Your task to perform on an android device: Go to CNN.com Image 0: 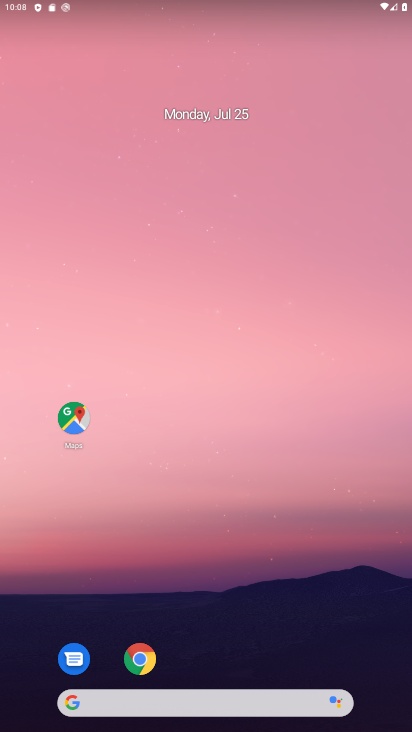
Step 0: drag from (207, 675) to (229, 171)
Your task to perform on an android device: Go to CNN.com Image 1: 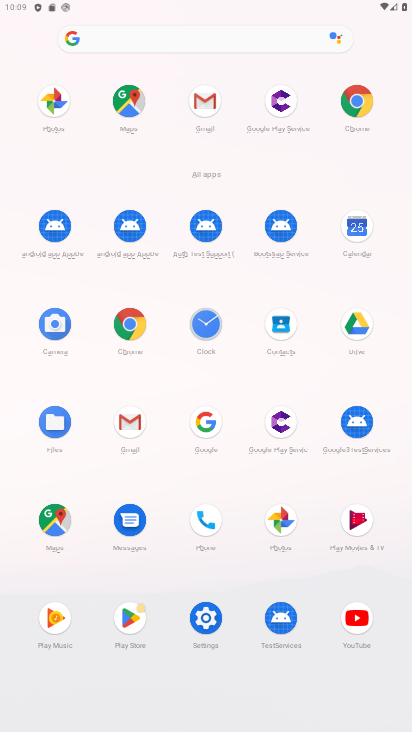
Step 1: click (356, 105)
Your task to perform on an android device: Go to CNN.com Image 2: 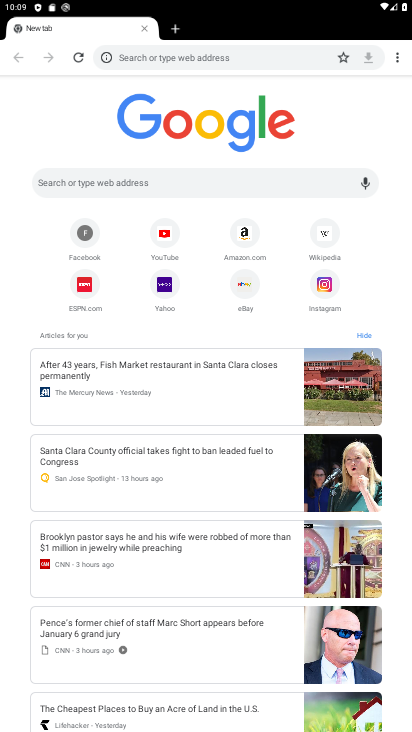
Step 2: click (112, 187)
Your task to perform on an android device: Go to CNN.com Image 3: 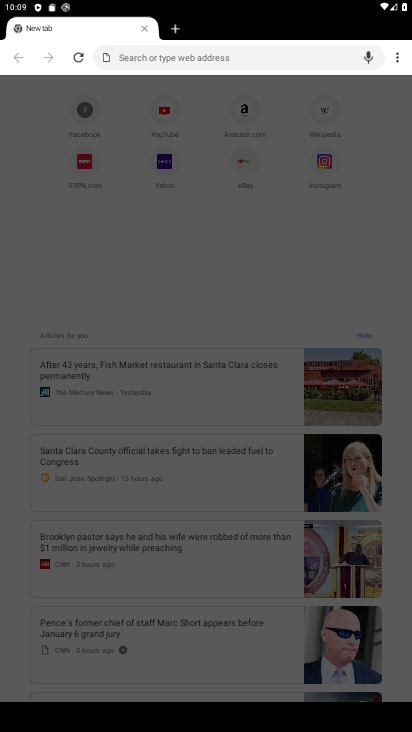
Step 3: type "cnn"
Your task to perform on an android device: Go to CNN.com Image 4: 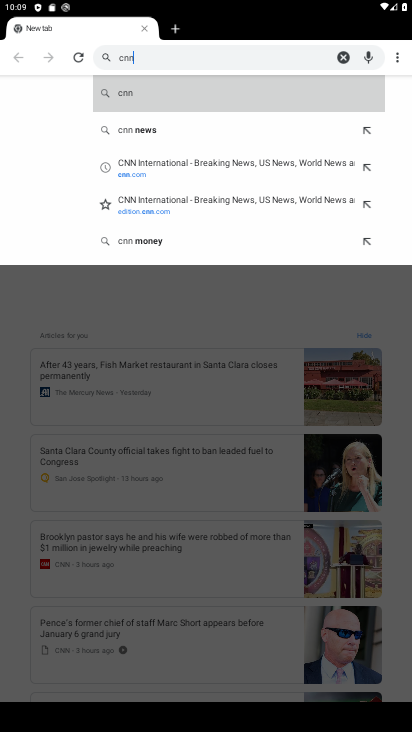
Step 4: type ""
Your task to perform on an android device: Go to CNN.com Image 5: 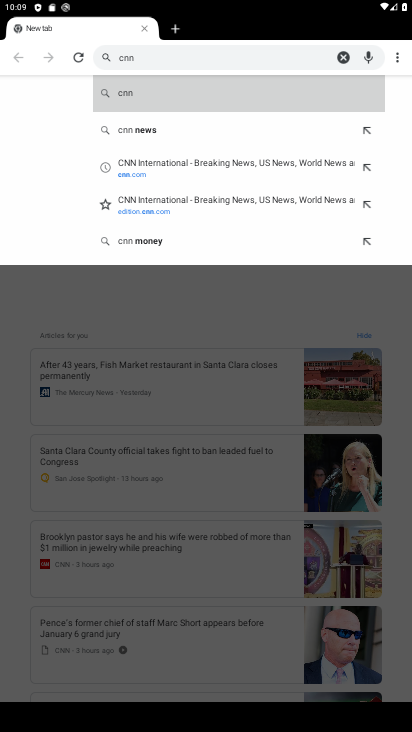
Step 5: click (154, 178)
Your task to perform on an android device: Go to CNN.com Image 6: 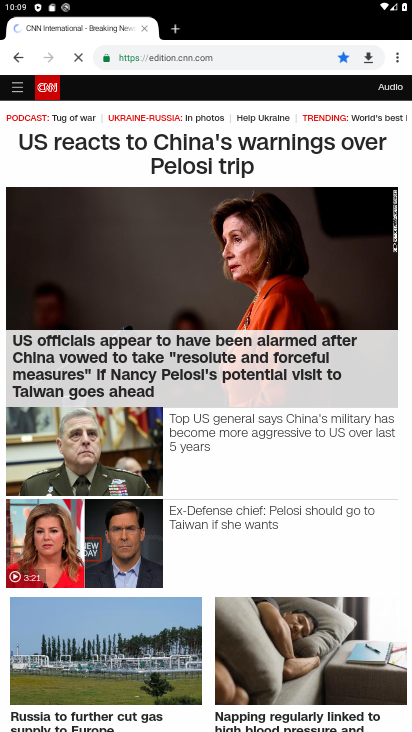
Step 6: task complete